Your task to perform on an android device: Open Maps and search for coffee Image 0: 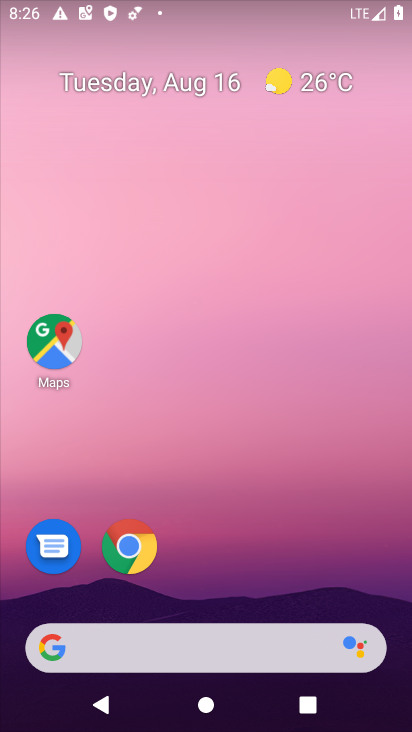
Step 0: click (48, 329)
Your task to perform on an android device: Open Maps and search for coffee Image 1: 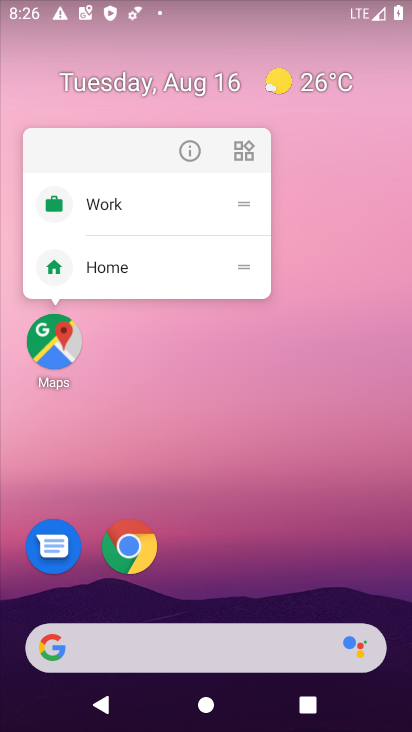
Step 1: click (48, 329)
Your task to perform on an android device: Open Maps and search for coffee Image 2: 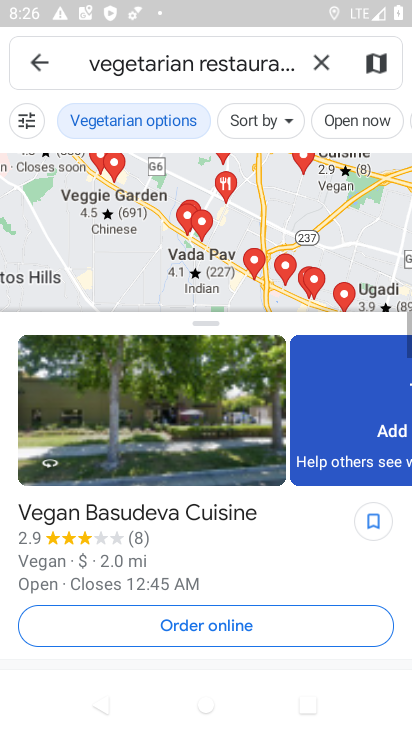
Step 2: click (324, 65)
Your task to perform on an android device: Open Maps and search for coffee Image 3: 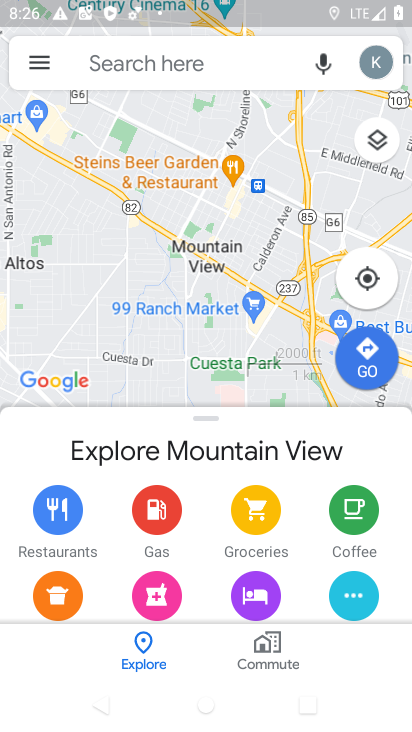
Step 3: click (211, 50)
Your task to perform on an android device: Open Maps and search for coffee Image 4: 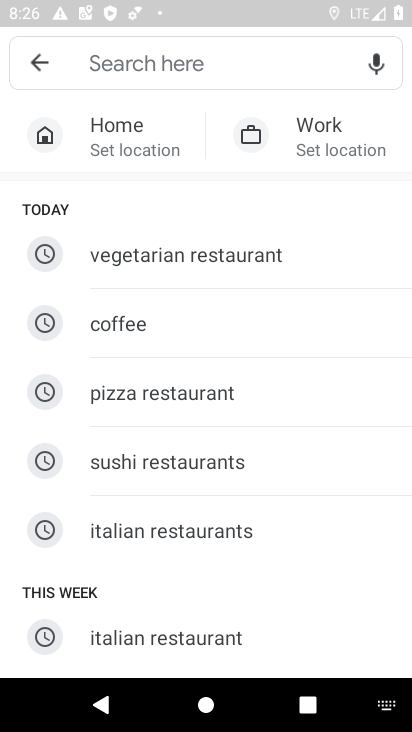
Step 4: click (131, 324)
Your task to perform on an android device: Open Maps and search for coffee Image 5: 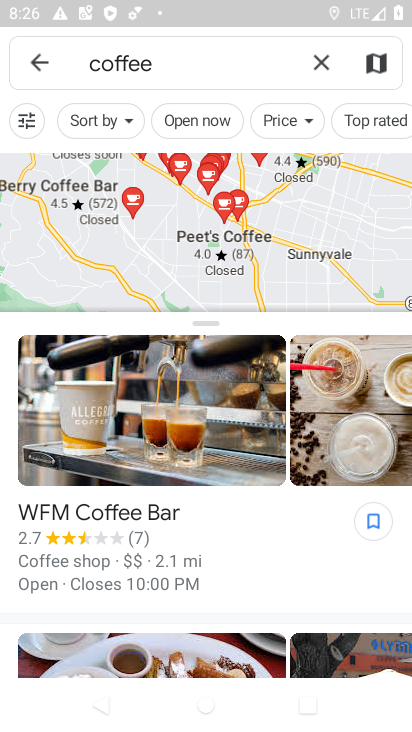
Step 5: task complete